Your task to perform on an android device: Go to Google Image 0: 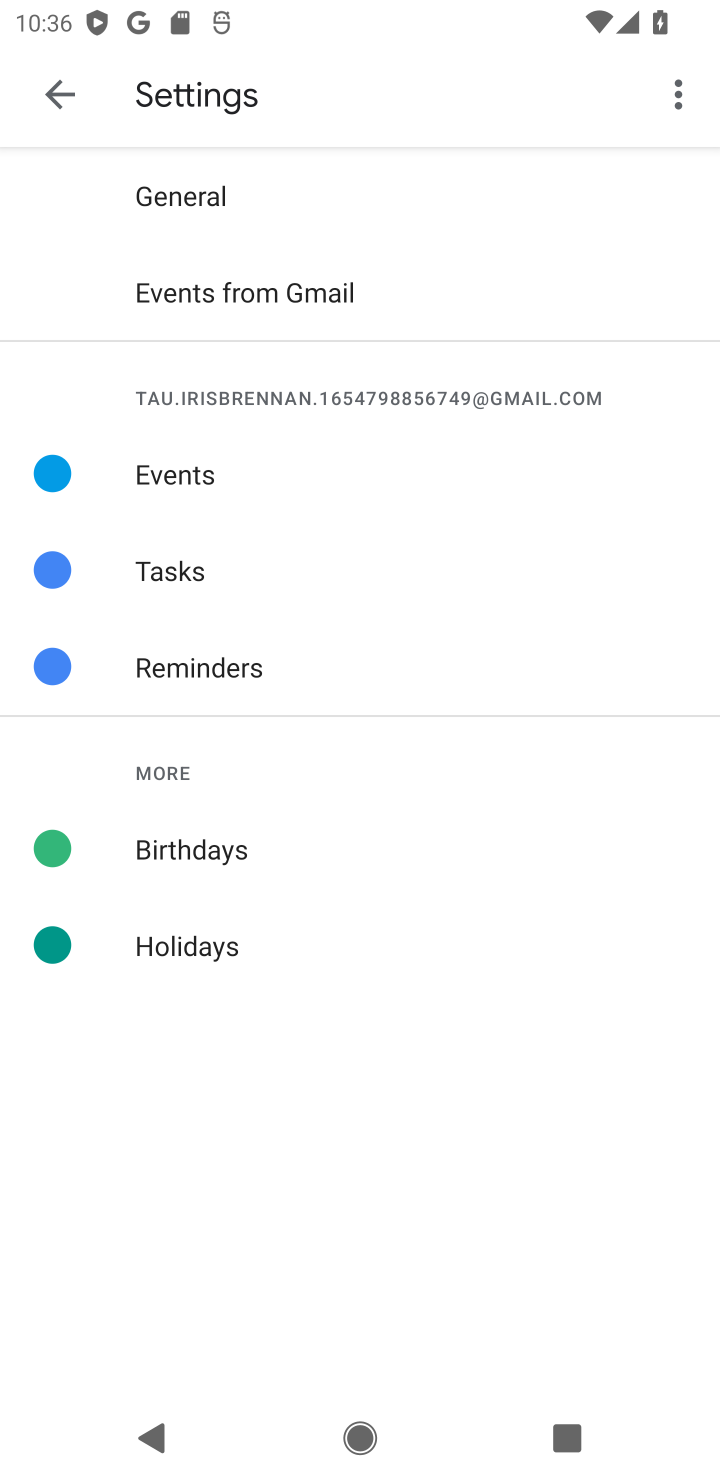
Step 0: press home button
Your task to perform on an android device: Go to Google Image 1: 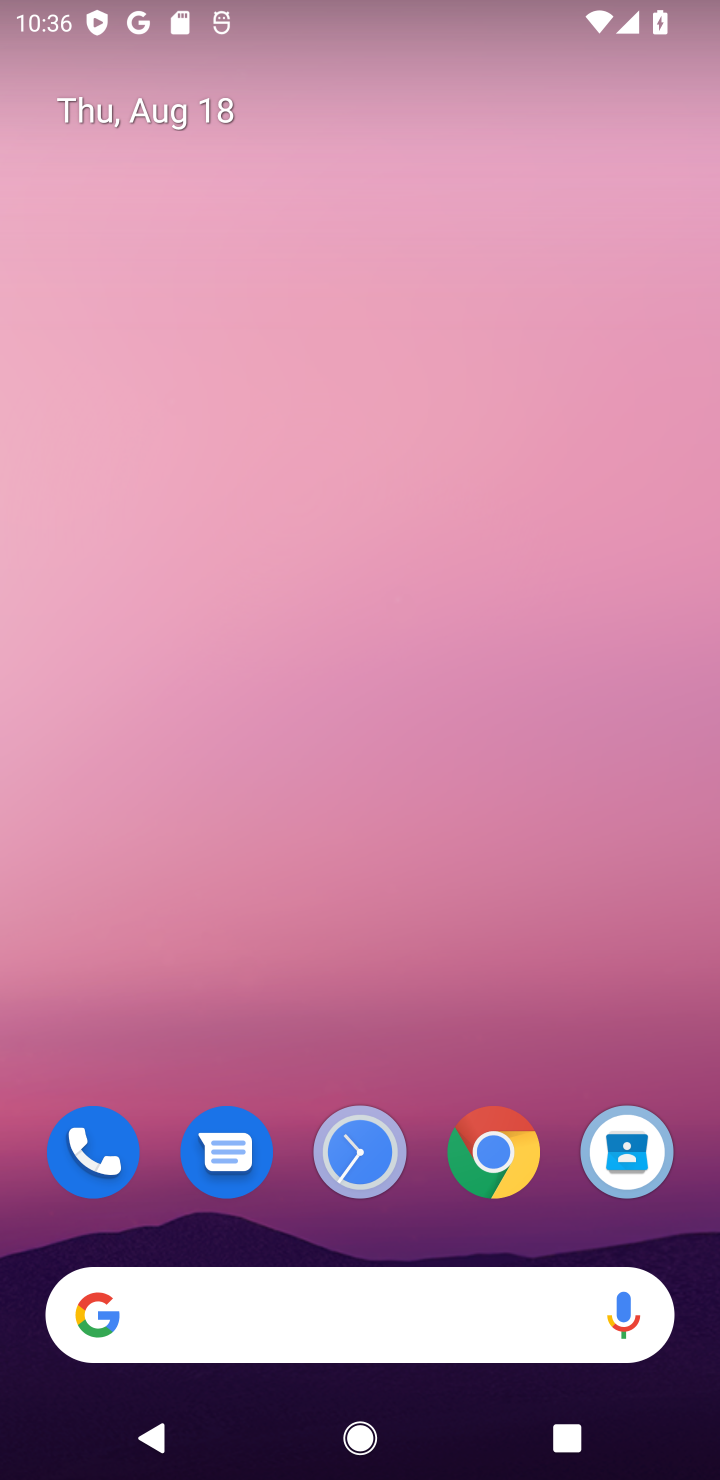
Step 1: click (319, 1333)
Your task to perform on an android device: Go to Google Image 2: 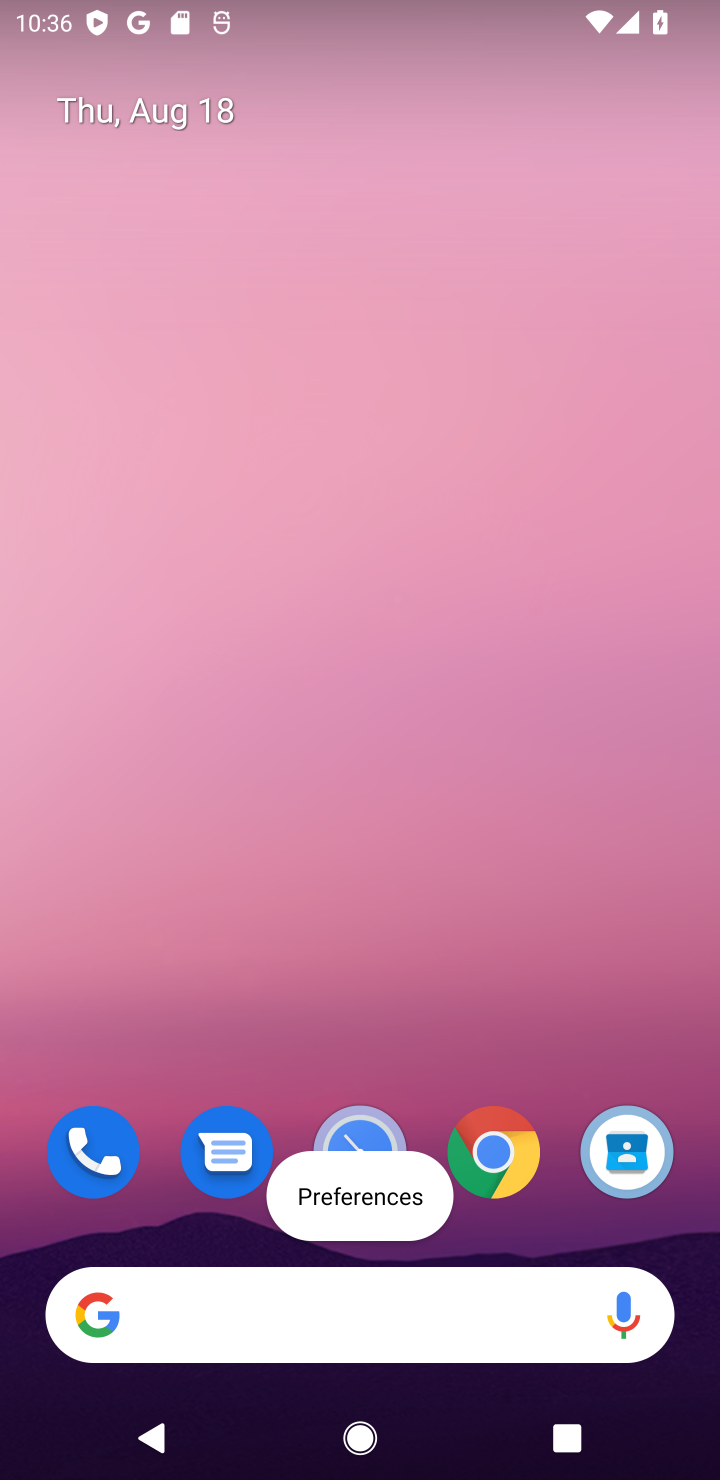
Step 2: click (87, 1315)
Your task to perform on an android device: Go to Google Image 3: 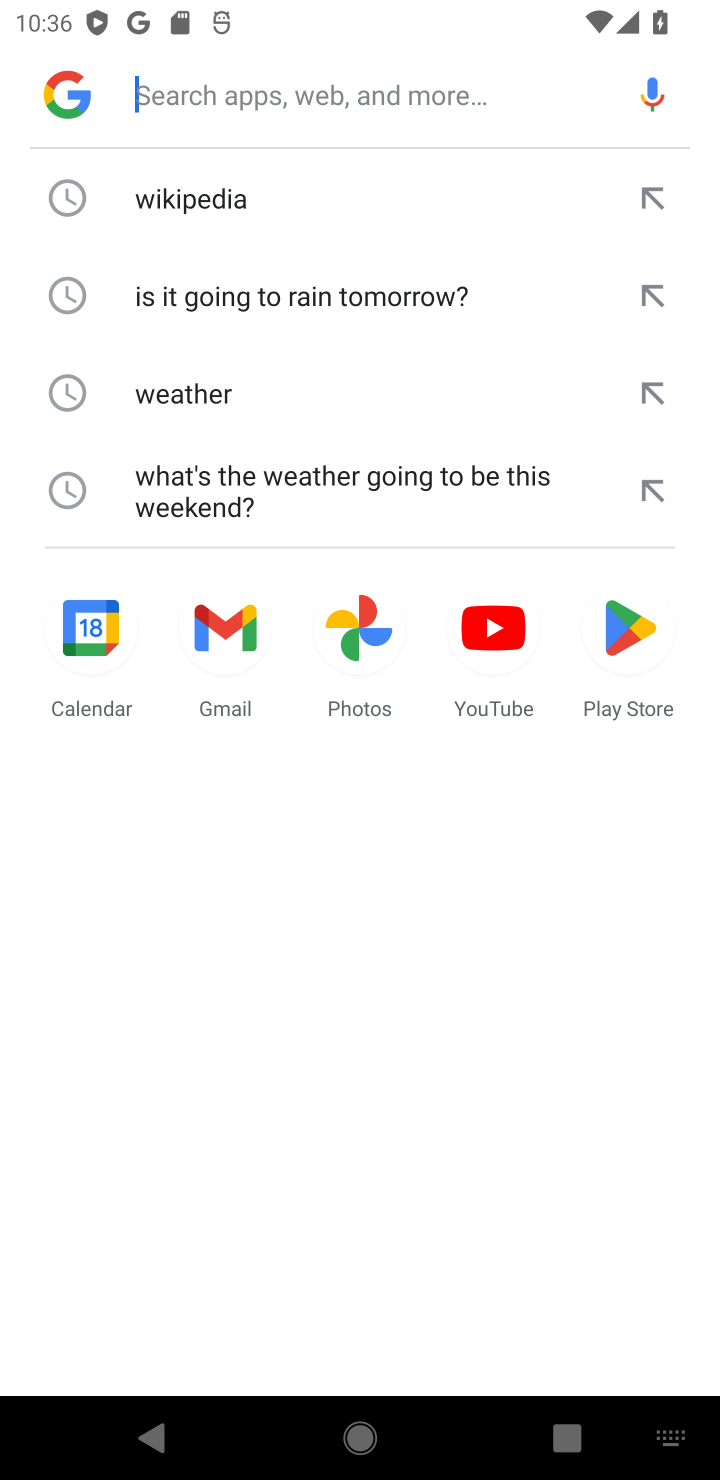
Step 3: click (64, 81)
Your task to perform on an android device: Go to Google Image 4: 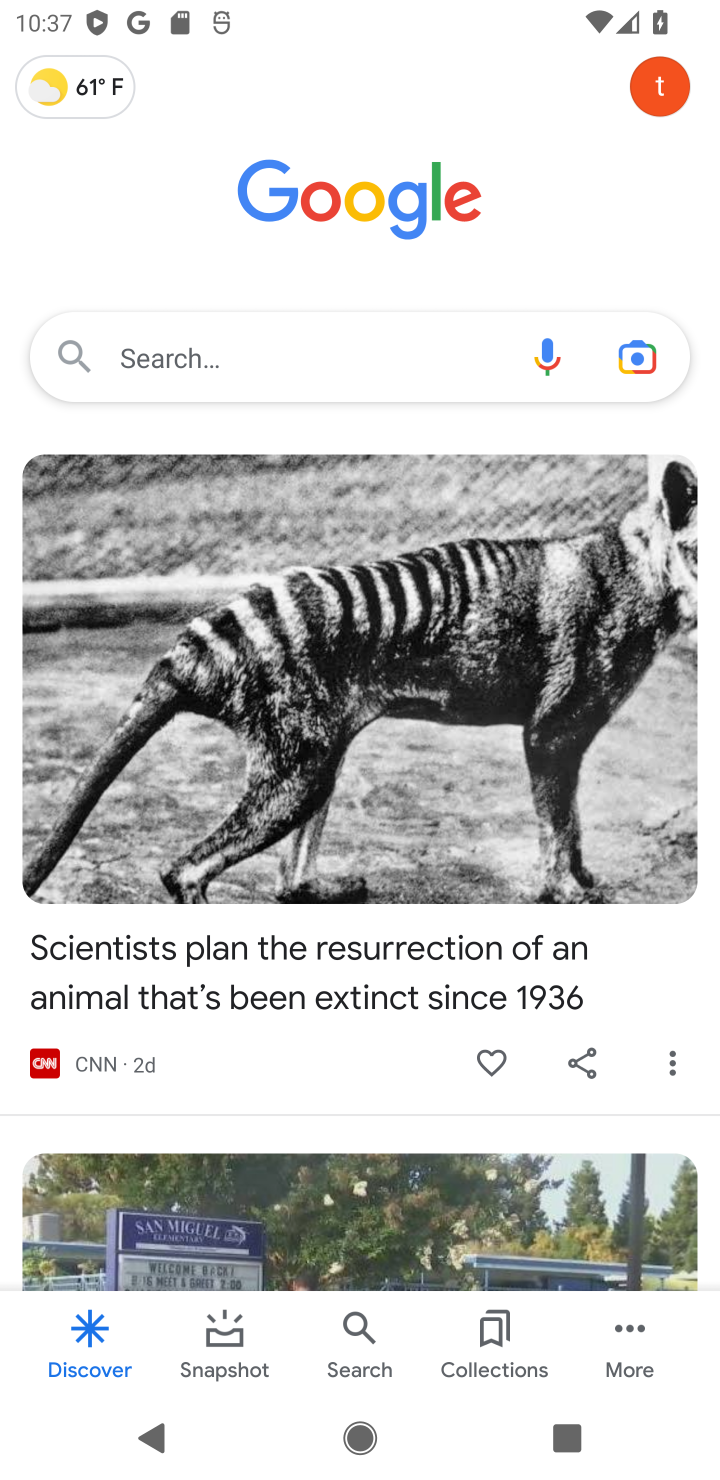
Step 4: task complete